Your task to perform on an android device: Go to Amazon Image 0: 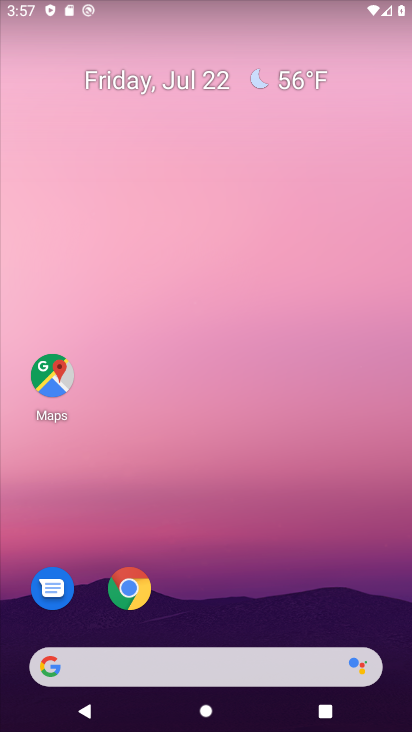
Step 0: click (132, 605)
Your task to perform on an android device: Go to Amazon Image 1: 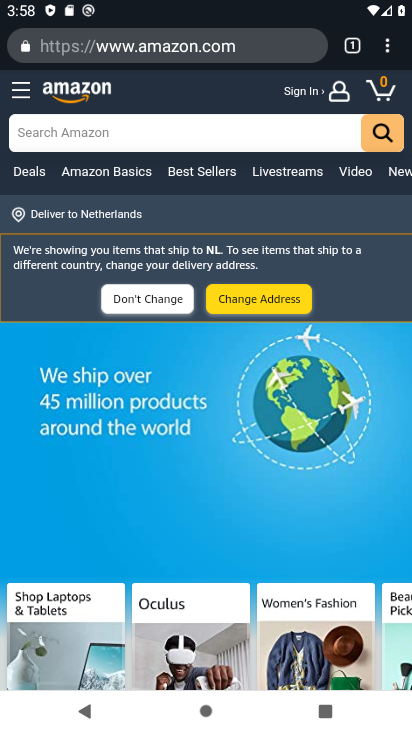
Step 1: task complete